Your task to perform on an android device: turn off priority inbox in the gmail app Image 0: 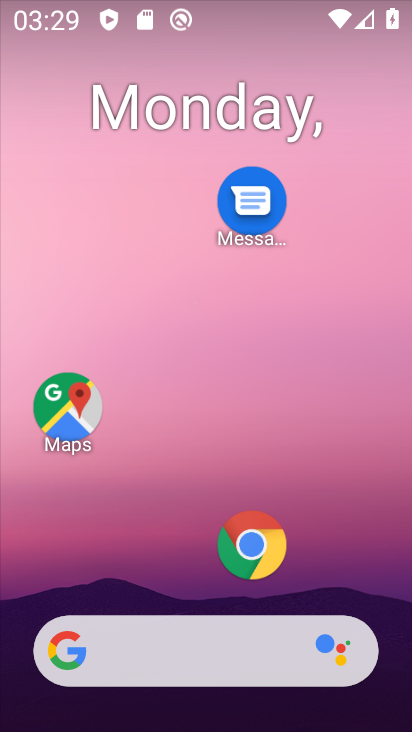
Step 0: drag from (167, 581) to (238, 105)
Your task to perform on an android device: turn off priority inbox in the gmail app Image 1: 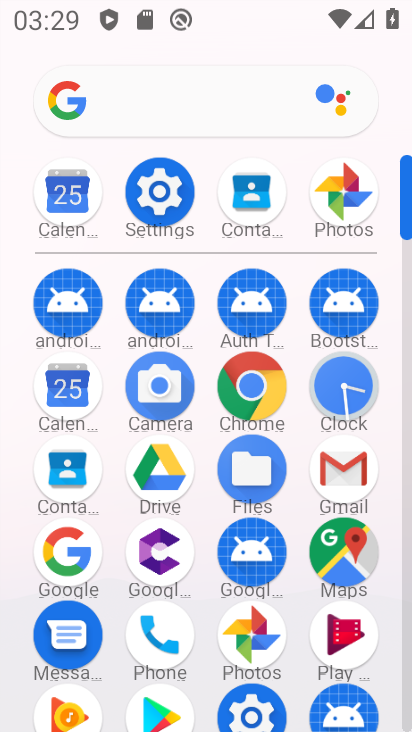
Step 1: click (349, 476)
Your task to perform on an android device: turn off priority inbox in the gmail app Image 2: 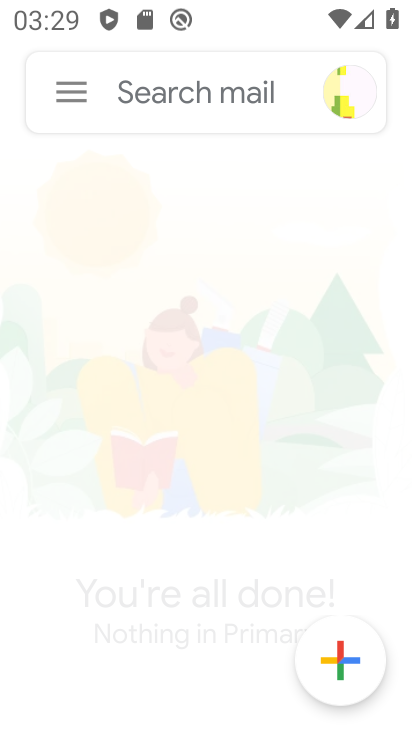
Step 2: click (76, 80)
Your task to perform on an android device: turn off priority inbox in the gmail app Image 3: 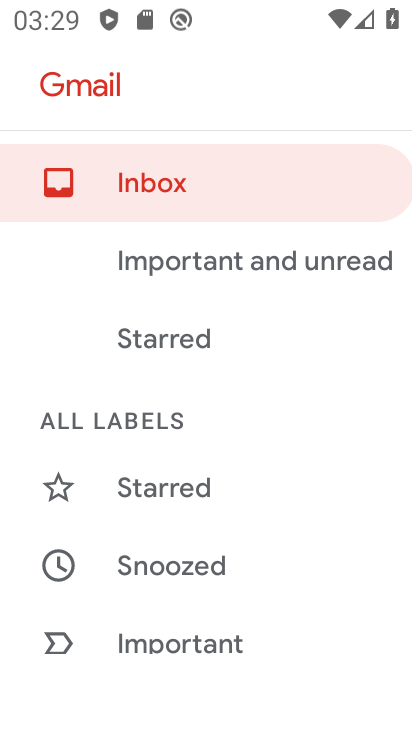
Step 3: drag from (203, 610) to (297, 59)
Your task to perform on an android device: turn off priority inbox in the gmail app Image 4: 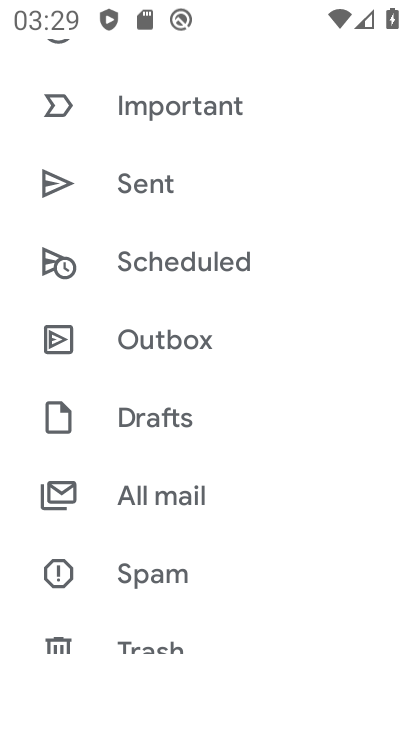
Step 4: drag from (184, 638) to (325, 93)
Your task to perform on an android device: turn off priority inbox in the gmail app Image 5: 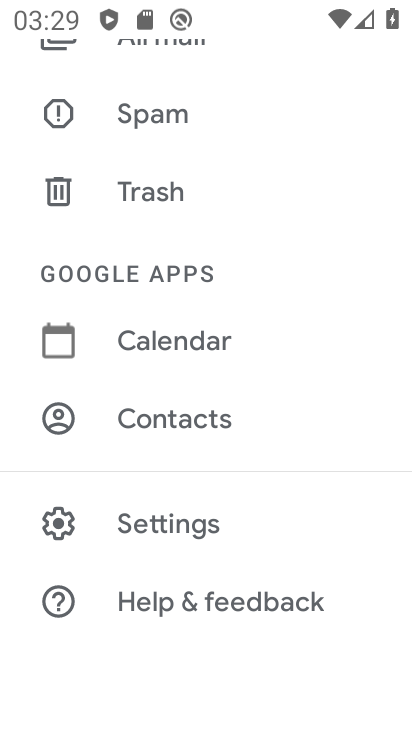
Step 5: click (177, 519)
Your task to perform on an android device: turn off priority inbox in the gmail app Image 6: 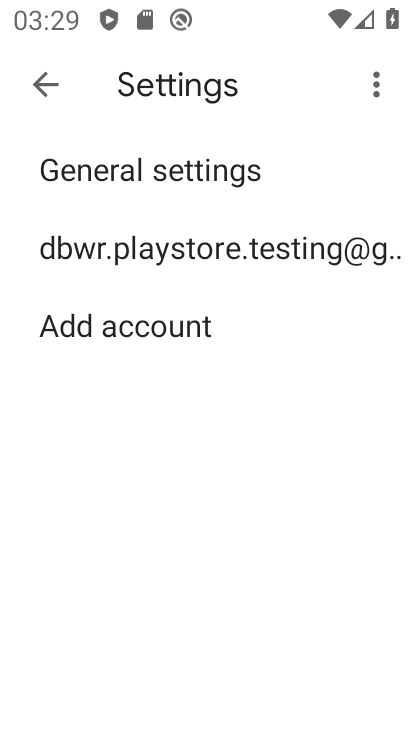
Step 6: click (120, 242)
Your task to perform on an android device: turn off priority inbox in the gmail app Image 7: 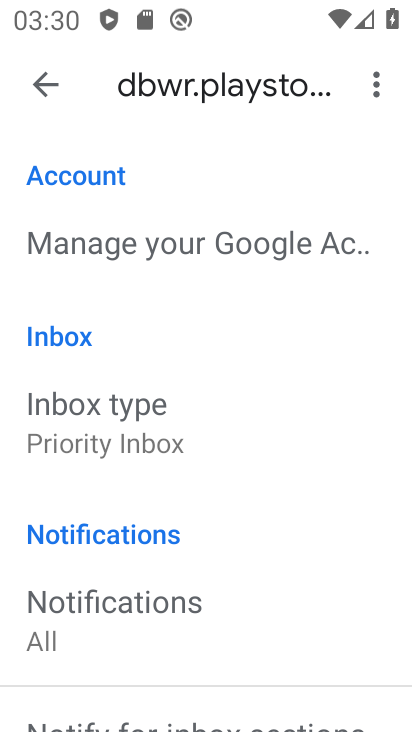
Step 7: click (138, 426)
Your task to perform on an android device: turn off priority inbox in the gmail app Image 8: 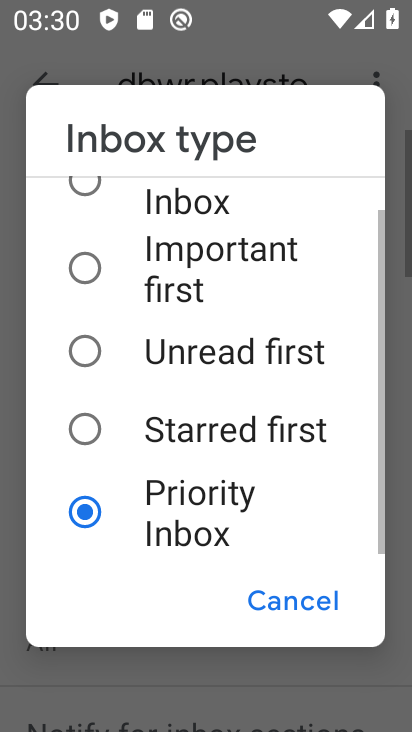
Step 8: drag from (185, 218) to (185, 607)
Your task to perform on an android device: turn off priority inbox in the gmail app Image 9: 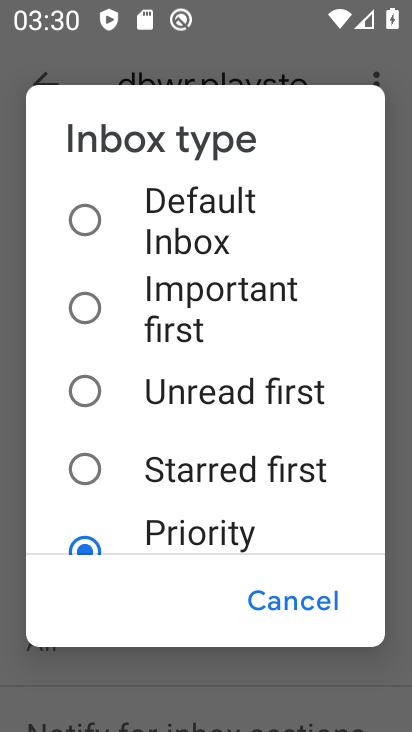
Step 9: click (90, 223)
Your task to perform on an android device: turn off priority inbox in the gmail app Image 10: 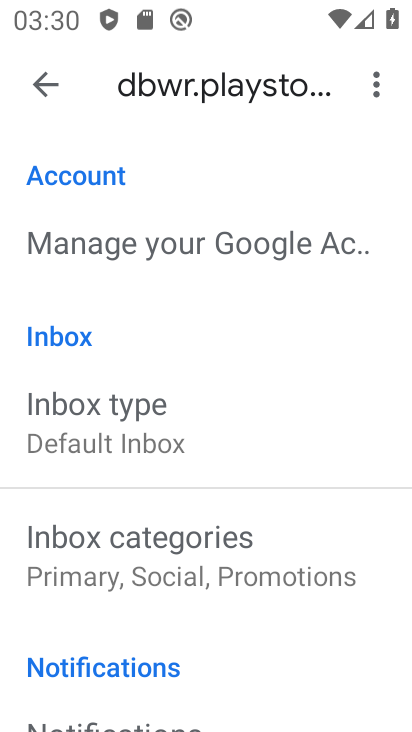
Step 10: task complete